Your task to perform on an android device: open a bookmark in the chrome app Image 0: 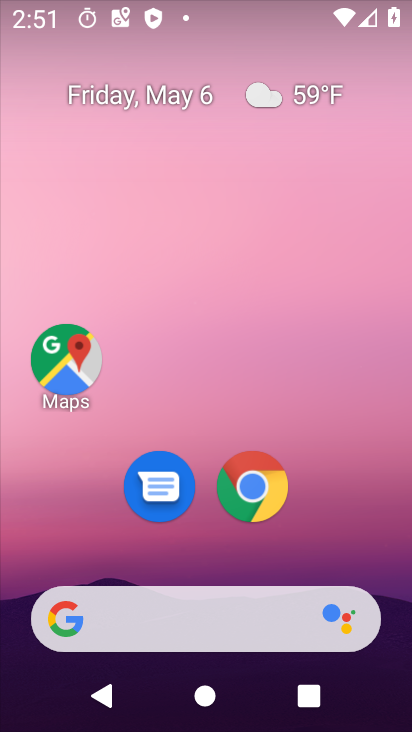
Step 0: click (247, 496)
Your task to perform on an android device: open a bookmark in the chrome app Image 1: 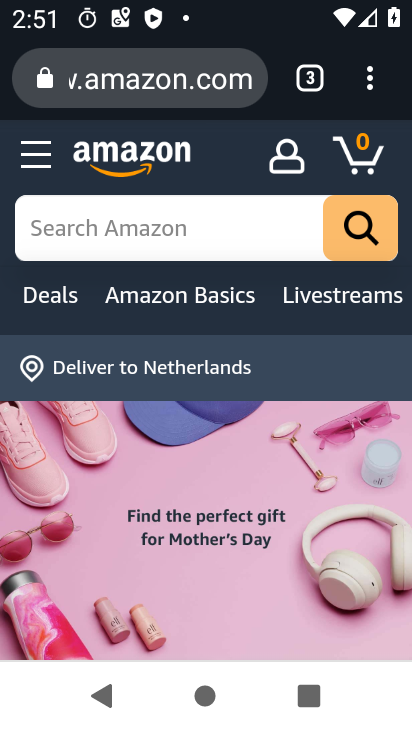
Step 1: click (366, 83)
Your task to perform on an android device: open a bookmark in the chrome app Image 2: 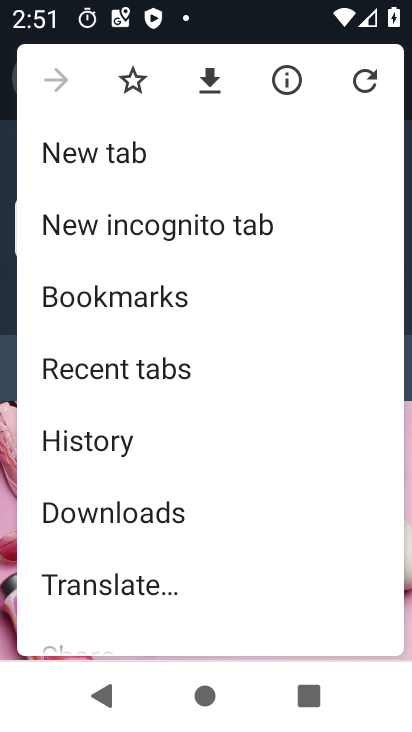
Step 2: click (124, 290)
Your task to perform on an android device: open a bookmark in the chrome app Image 3: 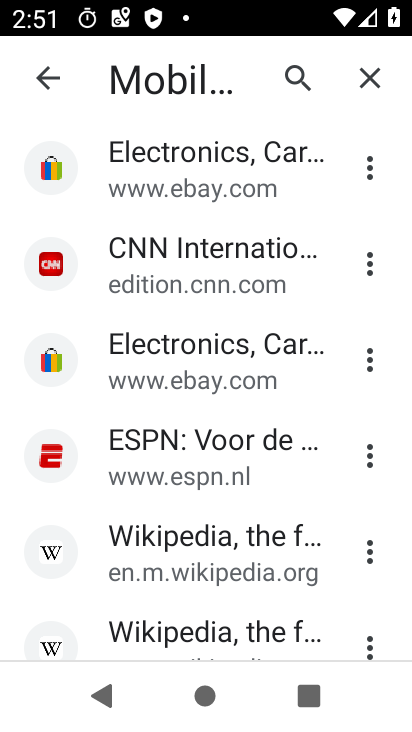
Step 3: task complete